Your task to perform on an android device: turn on airplane mode Image 0: 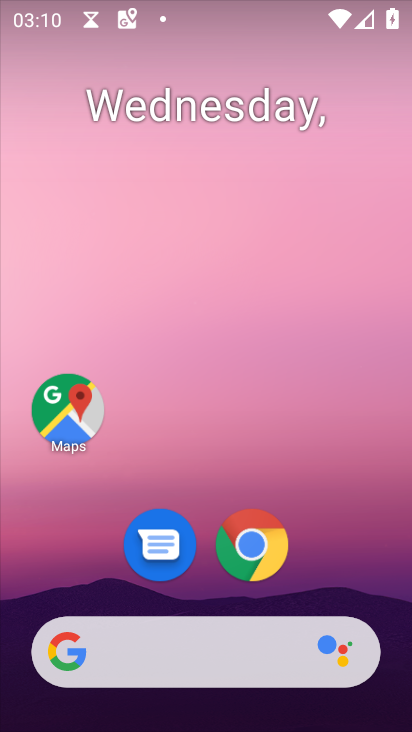
Step 0: press home button
Your task to perform on an android device: turn on airplane mode Image 1: 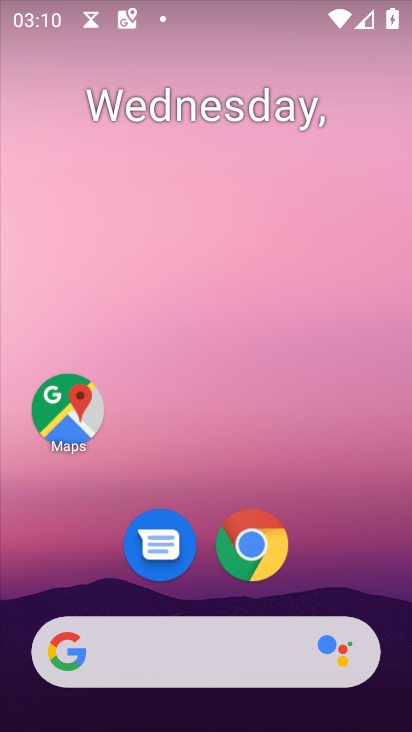
Step 1: drag from (221, 631) to (377, 27)
Your task to perform on an android device: turn on airplane mode Image 2: 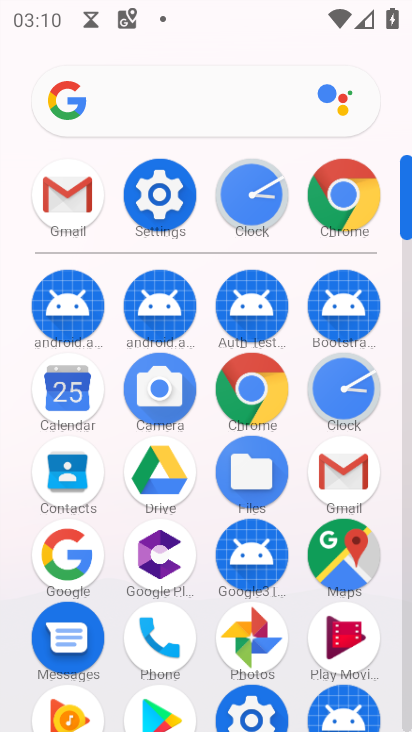
Step 2: click (159, 196)
Your task to perform on an android device: turn on airplane mode Image 3: 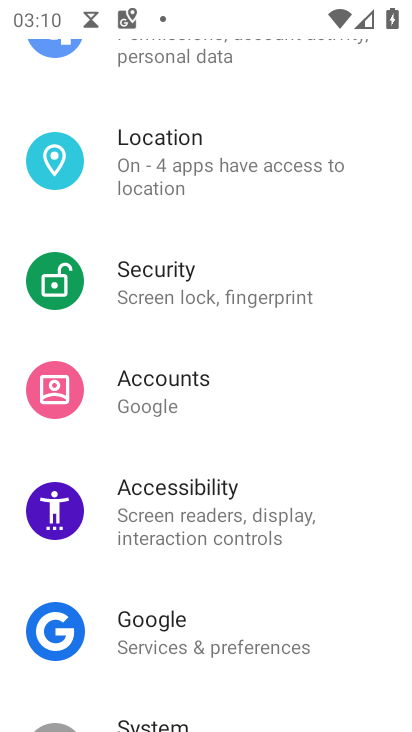
Step 3: drag from (306, 74) to (253, 485)
Your task to perform on an android device: turn on airplane mode Image 4: 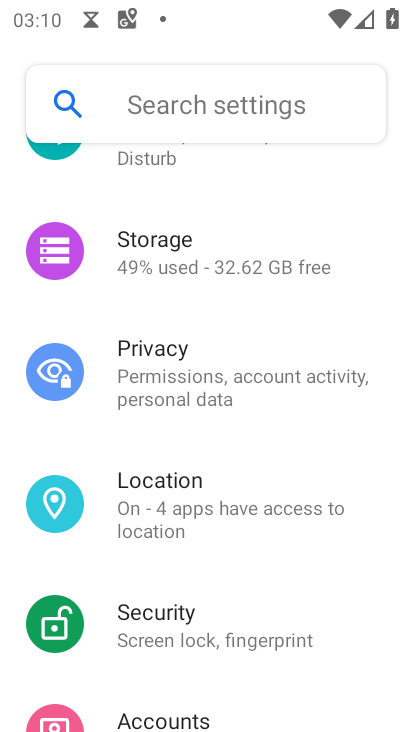
Step 4: drag from (268, 168) to (206, 591)
Your task to perform on an android device: turn on airplane mode Image 5: 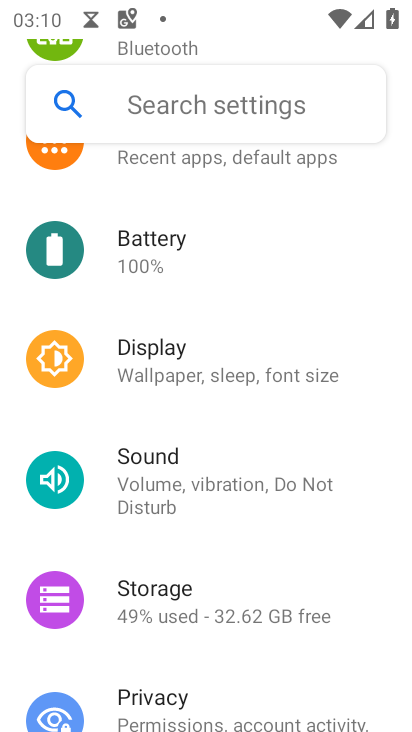
Step 5: drag from (296, 188) to (223, 648)
Your task to perform on an android device: turn on airplane mode Image 6: 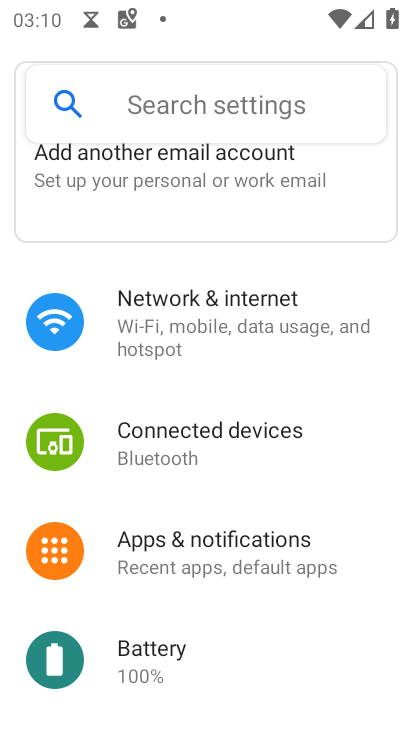
Step 6: click (263, 317)
Your task to perform on an android device: turn on airplane mode Image 7: 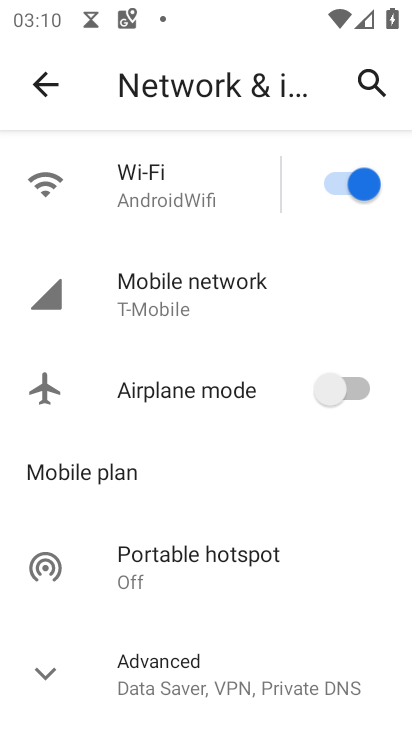
Step 7: click (352, 380)
Your task to perform on an android device: turn on airplane mode Image 8: 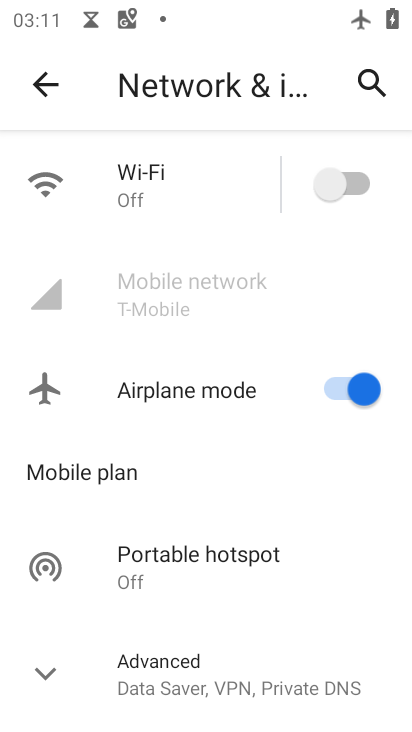
Step 8: task complete